Your task to perform on an android device: Open battery settings Image 0: 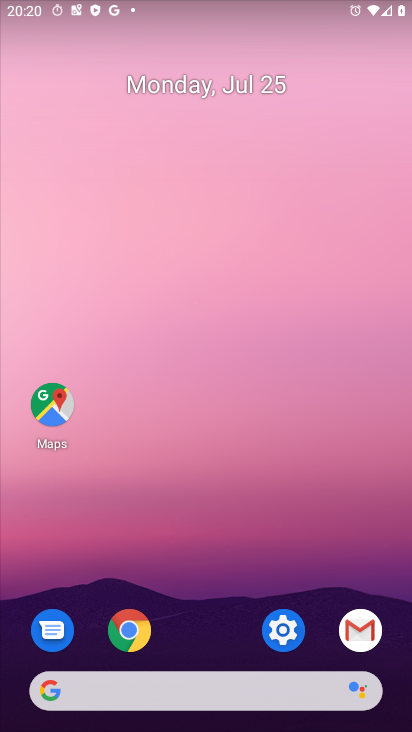
Step 0: click (288, 631)
Your task to perform on an android device: Open battery settings Image 1: 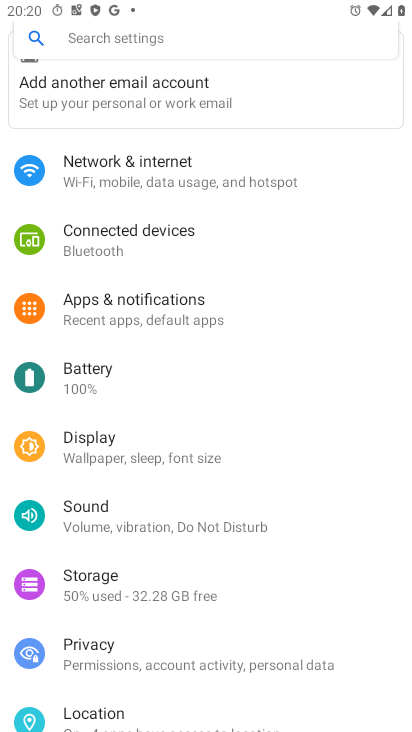
Step 1: click (122, 379)
Your task to perform on an android device: Open battery settings Image 2: 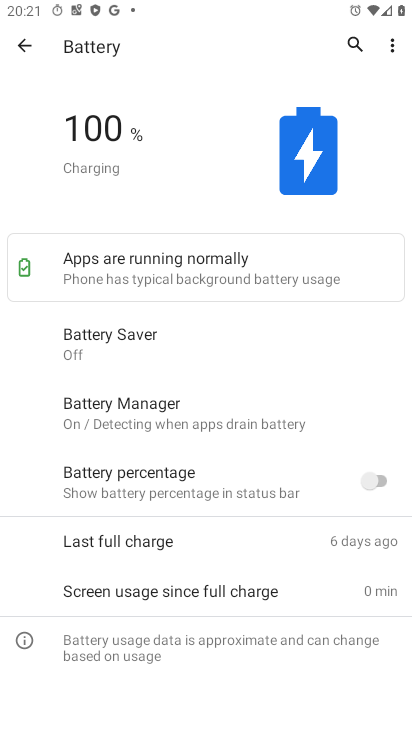
Step 2: task complete